Your task to perform on an android device: change notification settings in the gmail app Image 0: 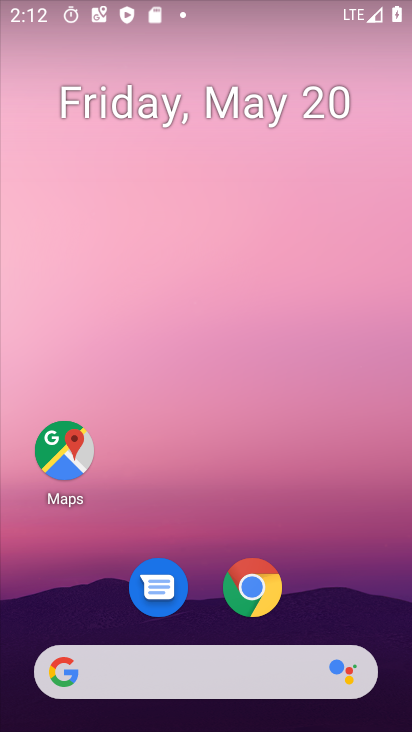
Step 0: drag from (330, 583) to (314, 200)
Your task to perform on an android device: change notification settings in the gmail app Image 1: 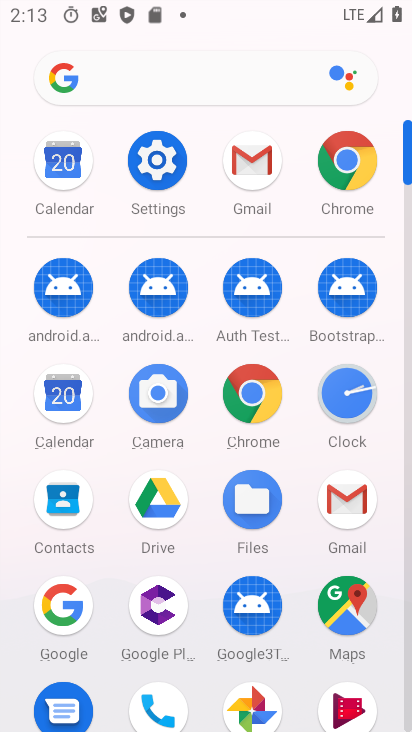
Step 1: click (268, 156)
Your task to perform on an android device: change notification settings in the gmail app Image 2: 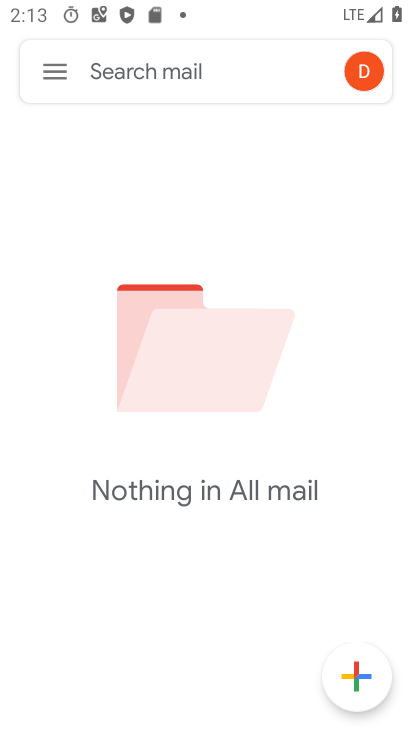
Step 2: click (57, 76)
Your task to perform on an android device: change notification settings in the gmail app Image 3: 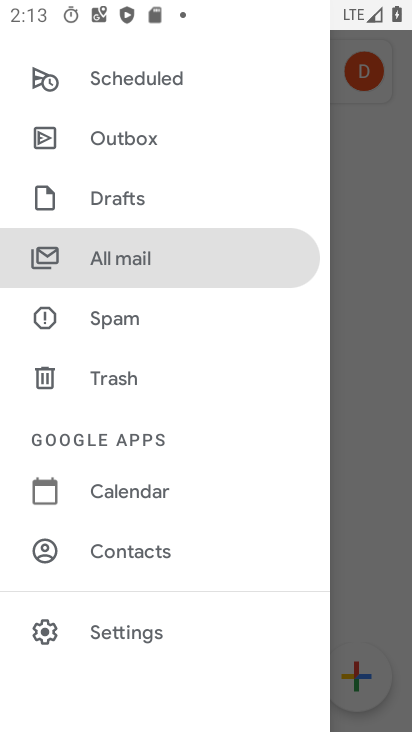
Step 3: click (143, 623)
Your task to perform on an android device: change notification settings in the gmail app Image 4: 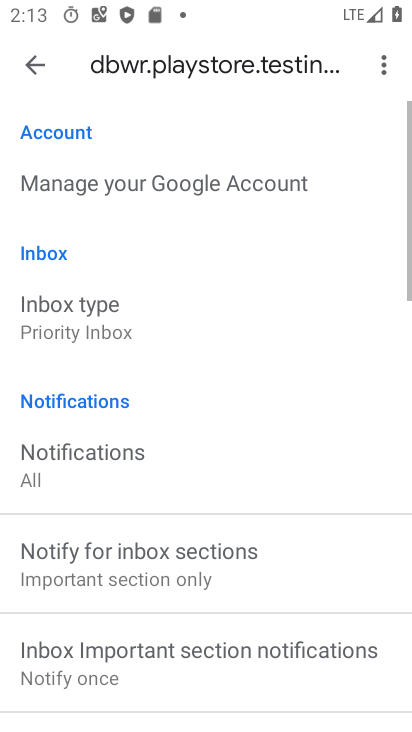
Step 4: drag from (164, 602) to (226, 209)
Your task to perform on an android device: change notification settings in the gmail app Image 5: 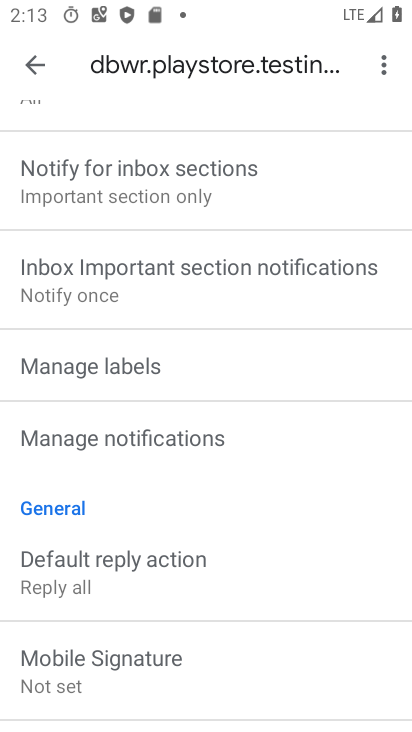
Step 5: click (174, 434)
Your task to perform on an android device: change notification settings in the gmail app Image 6: 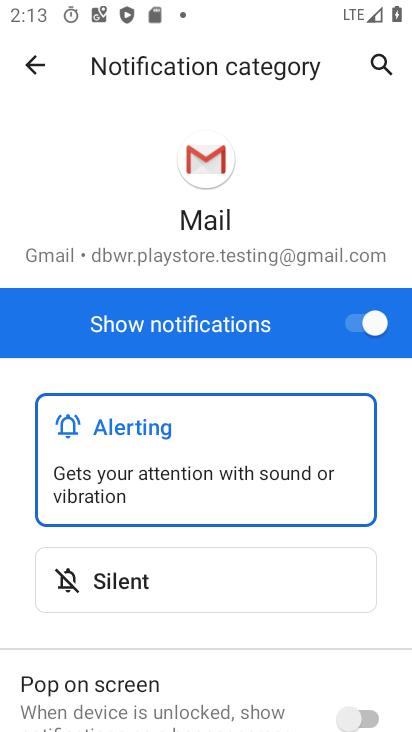
Step 6: click (386, 309)
Your task to perform on an android device: change notification settings in the gmail app Image 7: 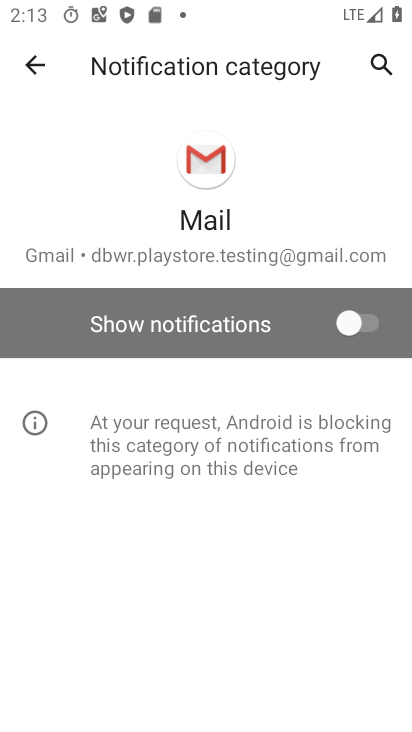
Step 7: task complete